Your task to perform on an android device: Do I have any events tomorrow? Image 0: 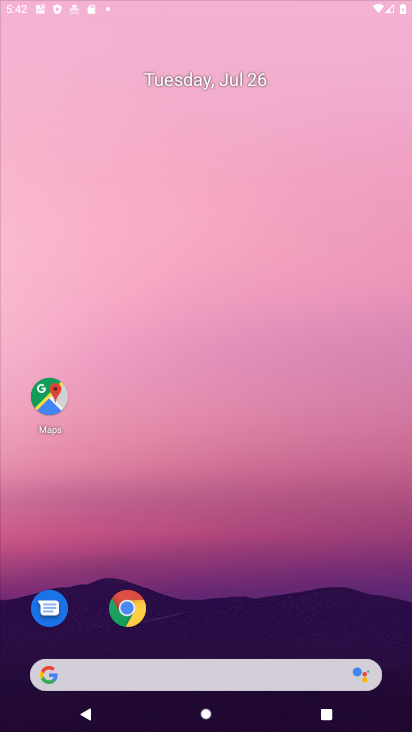
Step 0: press home button
Your task to perform on an android device: Do I have any events tomorrow? Image 1: 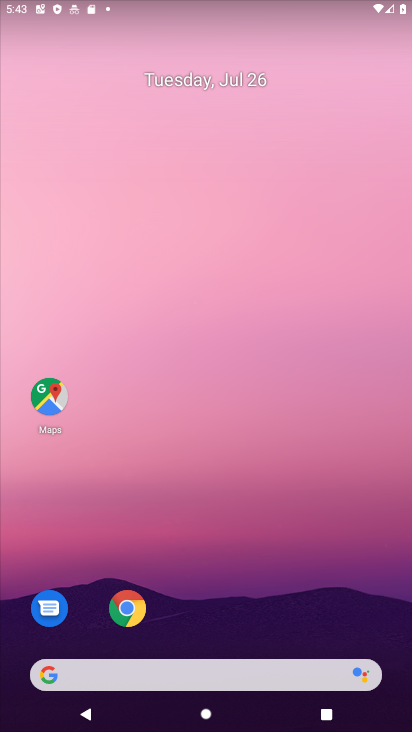
Step 1: drag from (276, 613) to (303, 78)
Your task to perform on an android device: Do I have any events tomorrow? Image 2: 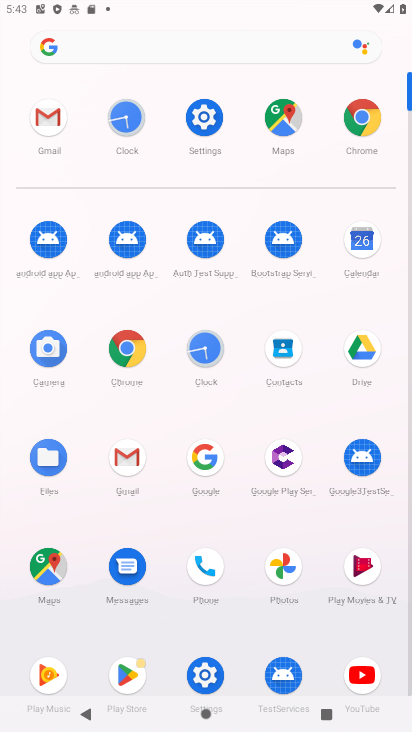
Step 2: click (361, 228)
Your task to perform on an android device: Do I have any events tomorrow? Image 3: 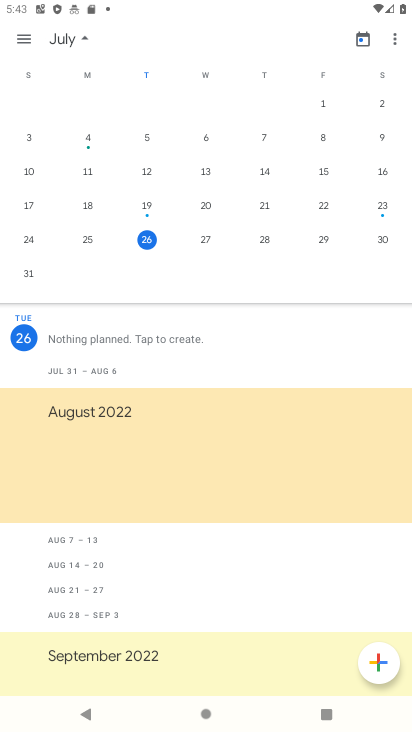
Step 3: click (212, 231)
Your task to perform on an android device: Do I have any events tomorrow? Image 4: 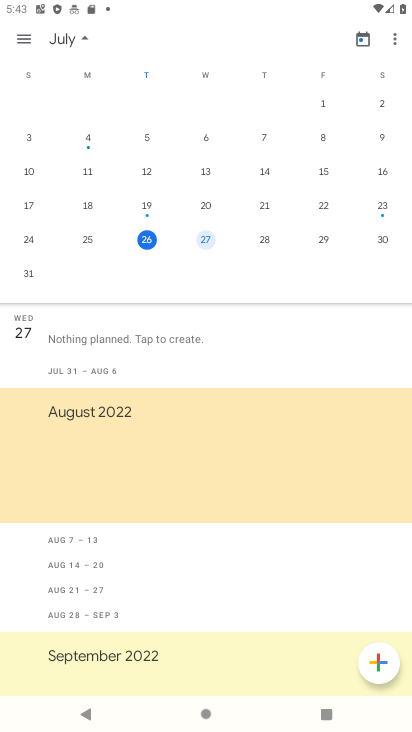
Step 4: task complete